Your task to perform on an android device: allow cookies in the chrome app Image 0: 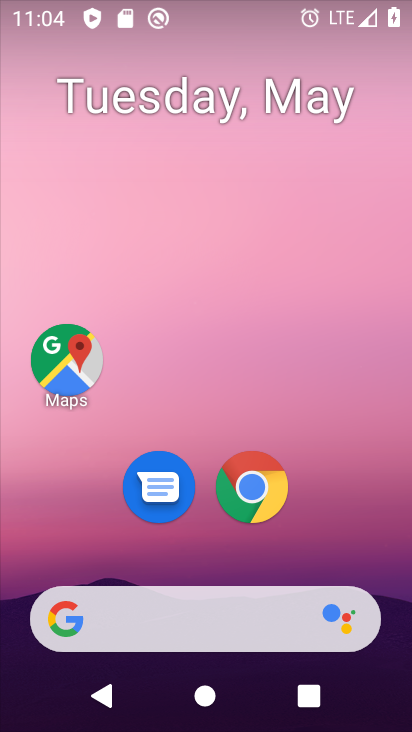
Step 0: drag from (200, 543) to (289, 118)
Your task to perform on an android device: allow cookies in the chrome app Image 1: 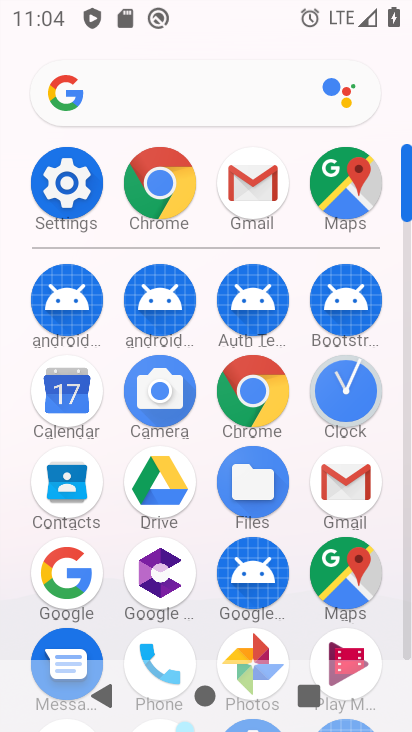
Step 1: click (254, 401)
Your task to perform on an android device: allow cookies in the chrome app Image 2: 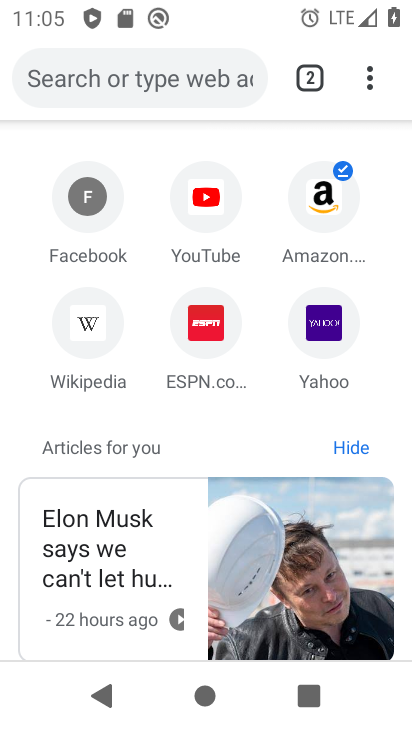
Step 2: click (387, 80)
Your task to perform on an android device: allow cookies in the chrome app Image 3: 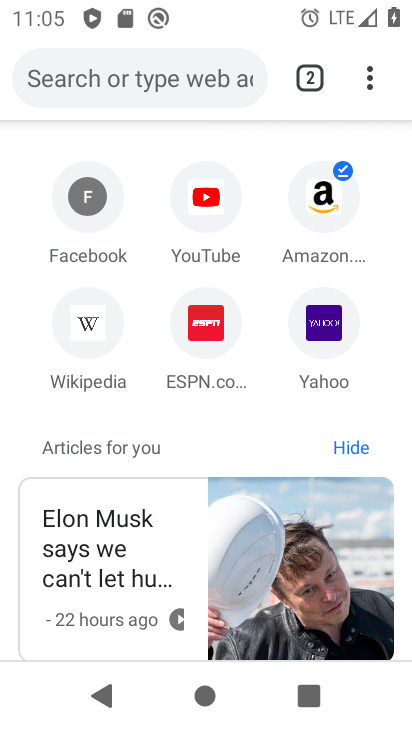
Step 3: click (370, 75)
Your task to perform on an android device: allow cookies in the chrome app Image 4: 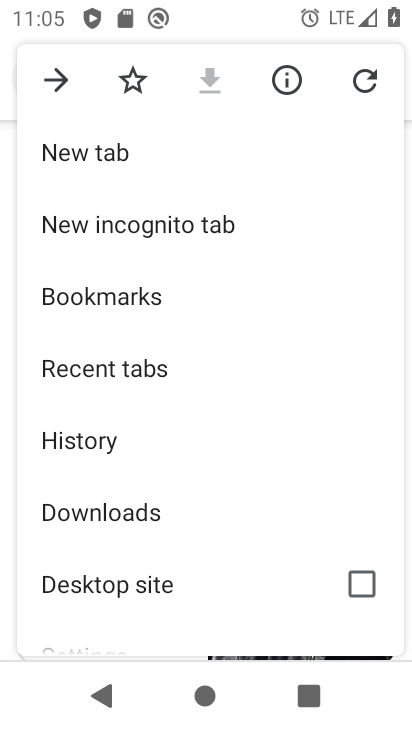
Step 4: drag from (149, 540) to (234, 97)
Your task to perform on an android device: allow cookies in the chrome app Image 5: 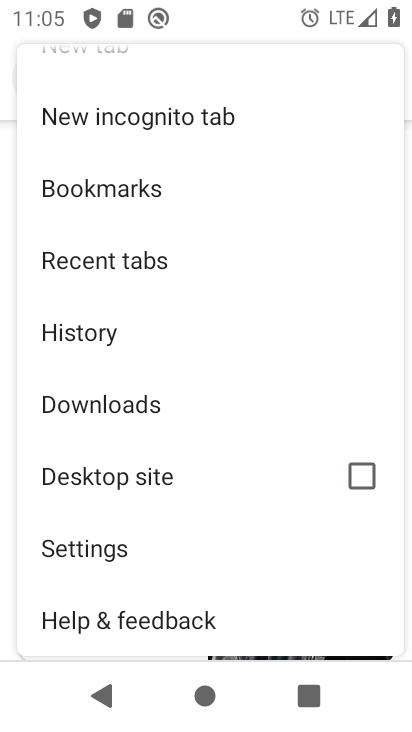
Step 5: click (102, 544)
Your task to perform on an android device: allow cookies in the chrome app Image 6: 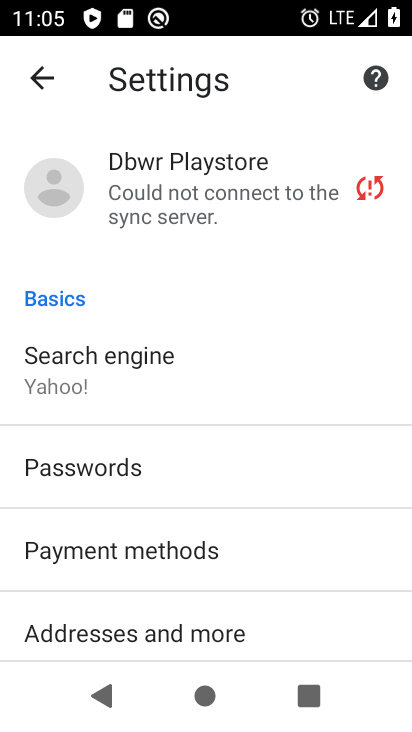
Step 6: drag from (200, 612) to (226, 146)
Your task to perform on an android device: allow cookies in the chrome app Image 7: 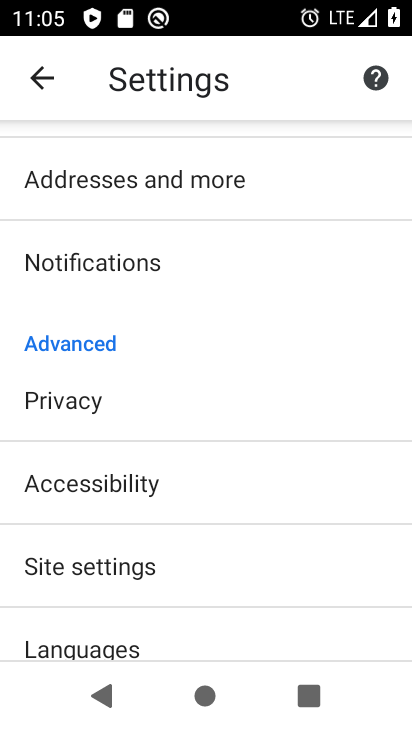
Step 7: click (122, 562)
Your task to perform on an android device: allow cookies in the chrome app Image 8: 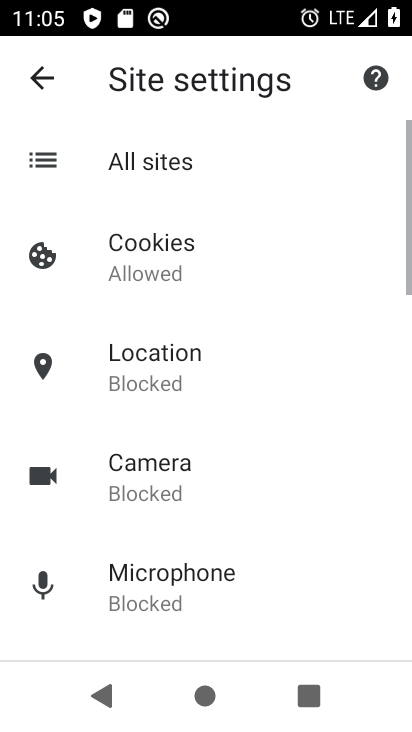
Step 8: click (202, 272)
Your task to perform on an android device: allow cookies in the chrome app Image 9: 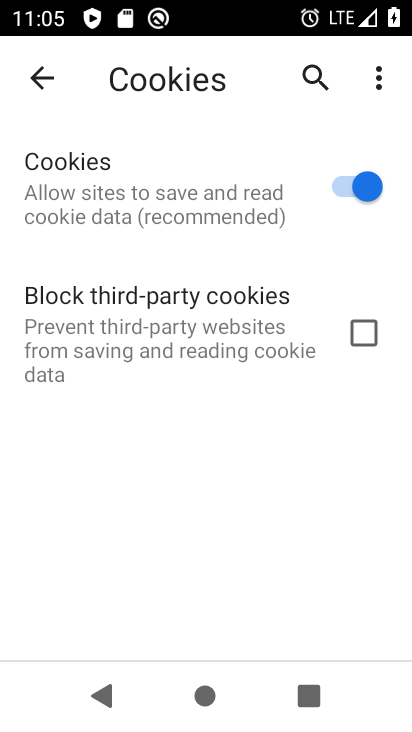
Step 9: task complete